Your task to perform on an android device: Open calendar and show me the first week of next month Image 0: 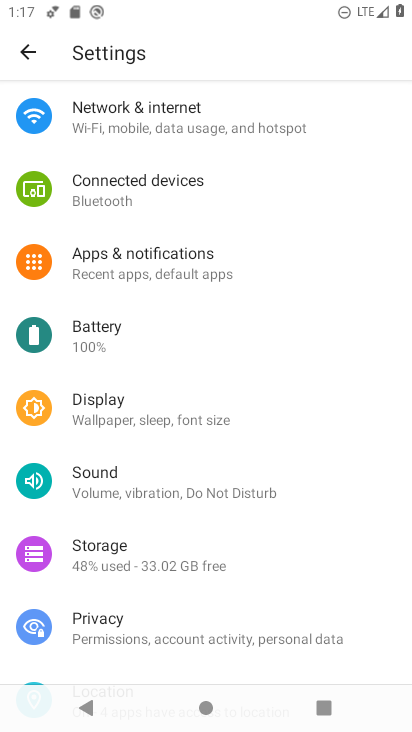
Step 0: press home button
Your task to perform on an android device: Open calendar and show me the first week of next month Image 1: 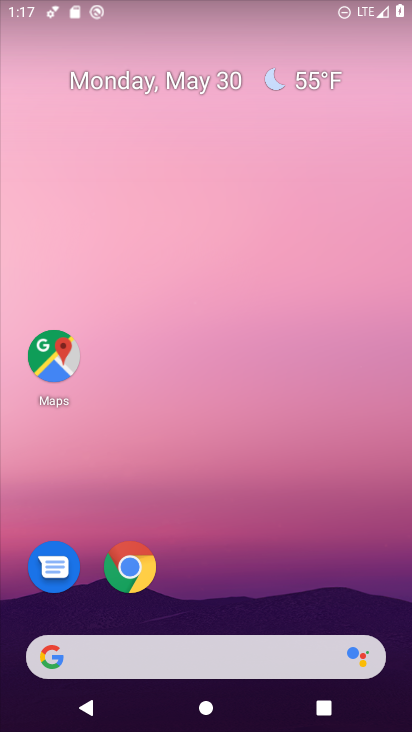
Step 1: drag from (224, 602) to (261, 120)
Your task to perform on an android device: Open calendar and show me the first week of next month Image 2: 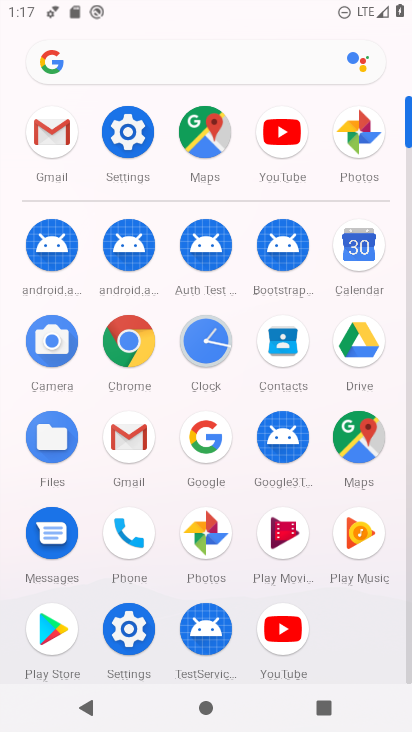
Step 2: click (356, 243)
Your task to perform on an android device: Open calendar and show me the first week of next month Image 3: 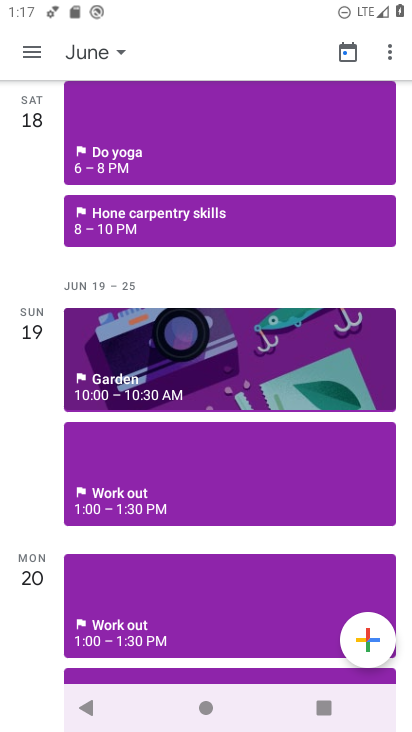
Step 3: click (35, 58)
Your task to perform on an android device: Open calendar and show me the first week of next month Image 4: 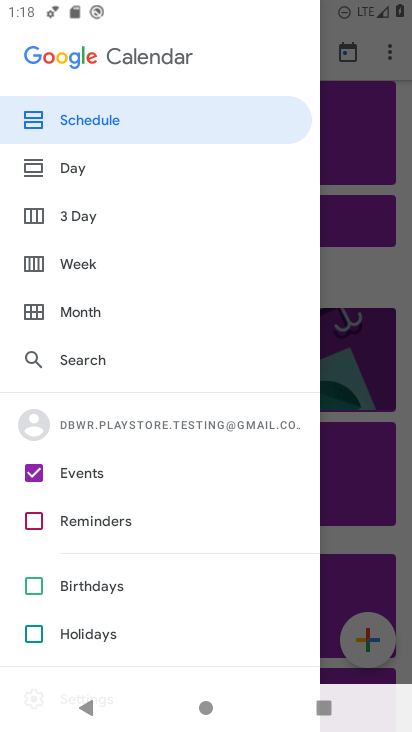
Step 4: click (61, 261)
Your task to perform on an android device: Open calendar and show me the first week of next month Image 5: 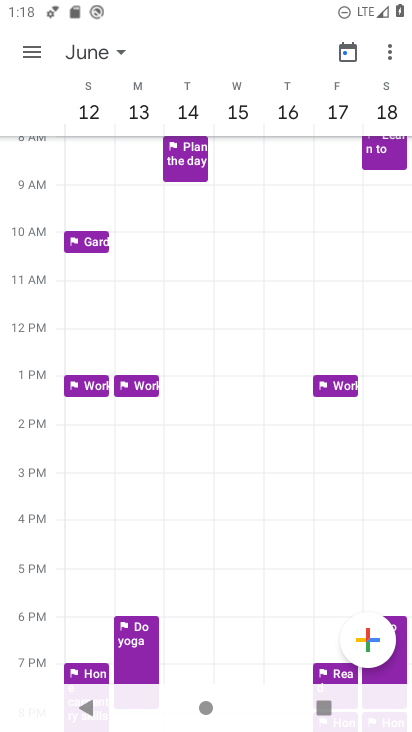
Step 5: drag from (88, 114) to (409, 118)
Your task to perform on an android device: Open calendar and show me the first week of next month Image 6: 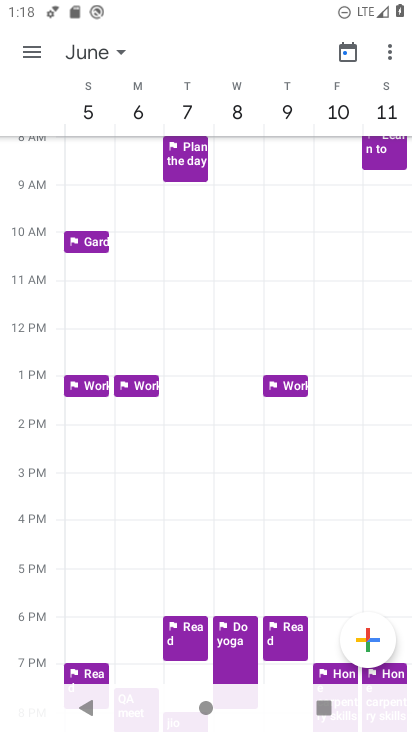
Step 6: drag from (83, 111) to (404, 111)
Your task to perform on an android device: Open calendar and show me the first week of next month Image 7: 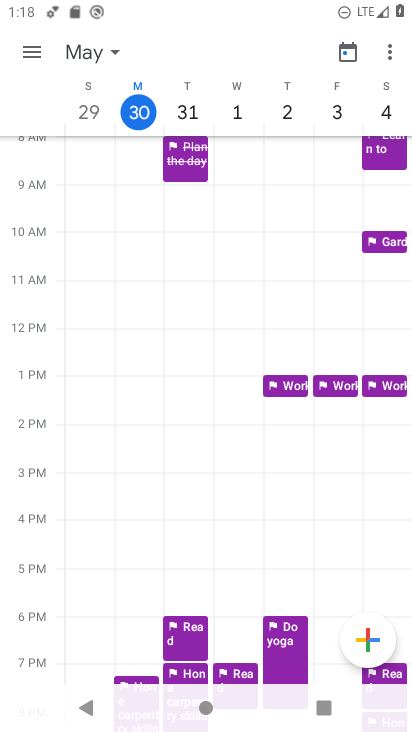
Step 7: click (243, 108)
Your task to perform on an android device: Open calendar and show me the first week of next month Image 8: 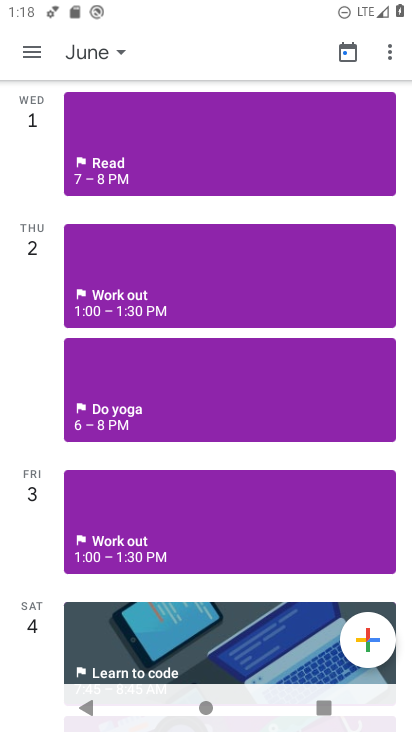
Step 8: task complete